Your task to perform on an android device: turn on improve location accuracy Image 0: 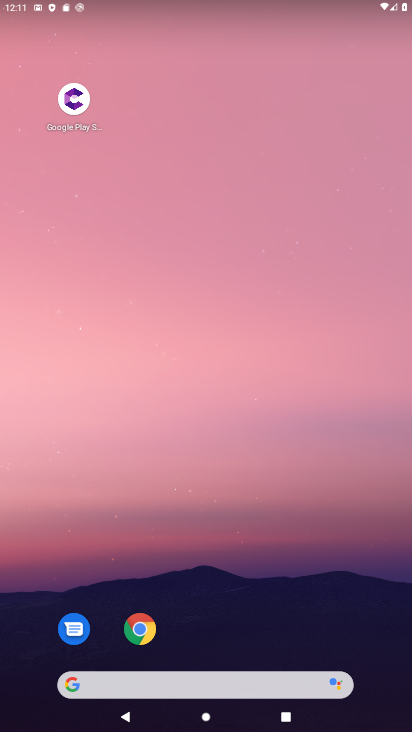
Step 0: drag from (208, 653) to (196, 44)
Your task to perform on an android device: turn on improve location accuracy Image 1: 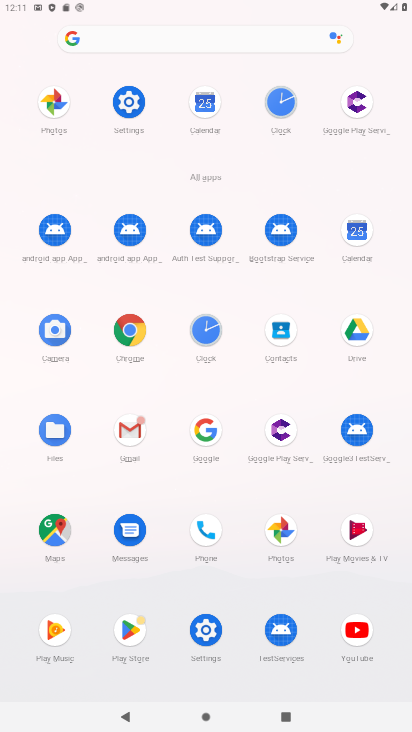
Step 1: click (120, 108)
Your task to perform on an android device: turn on improve location accuracy Image 2: 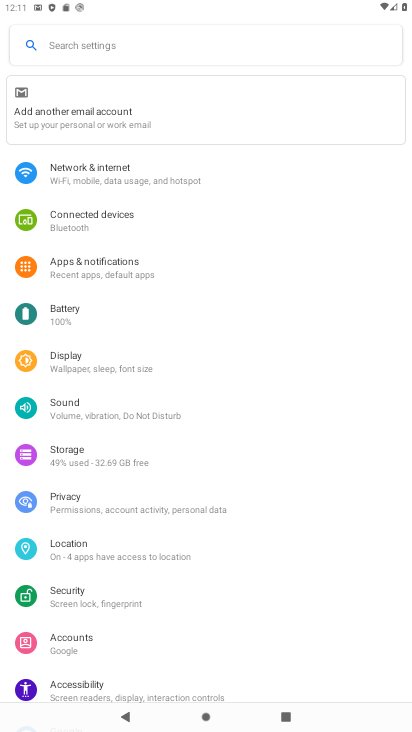
Step 2: click (88, 542)
Your task to perform on an android device: turn on improve location accuracy Image 3: 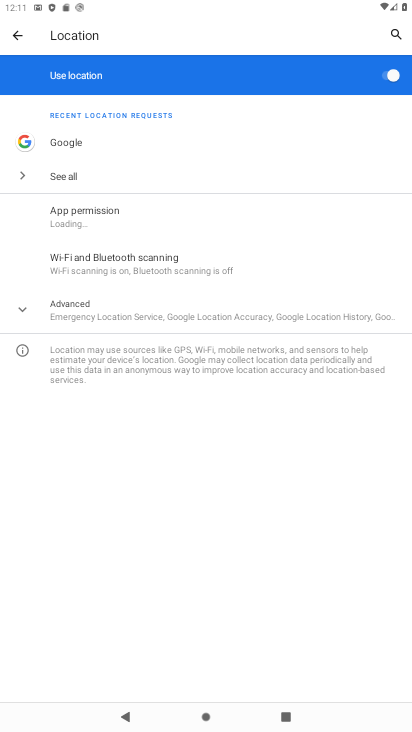
Step 3: click (94, 308)
Your task to perform on an android device: turn on improve location accuracy Image 4: 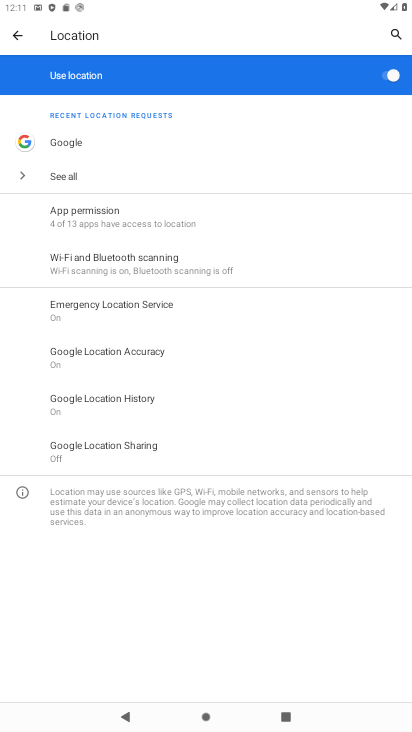
Step 4: click (85, 360)
Your task to perform on an android device: turn on improve location accuracy Image 5: 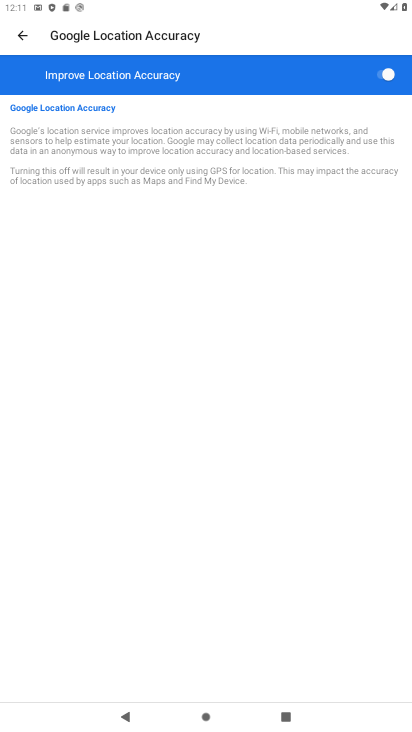
Step 5: task complete